Your task to perform on an android device: Open calendar and show me the fourth week of next month Image 0: 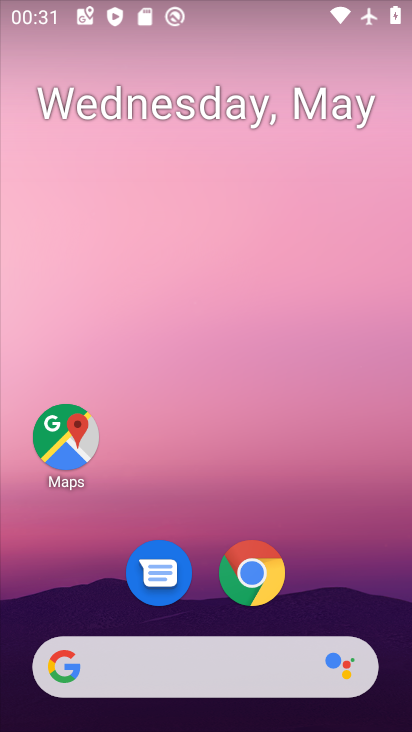
Step 0: drag from (286, 398) to (293, 160)
Your task to perform on an android device: Open calendar and show me the fourth week of next month Image 1: 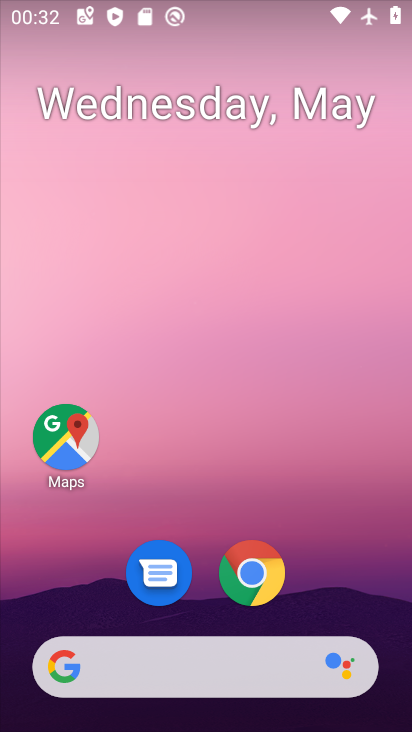
Step 1: drag from (271, 542) to (292, 242)
Your task to perform on an android device: Open calendar and show me the fourth week of next month Image 2: 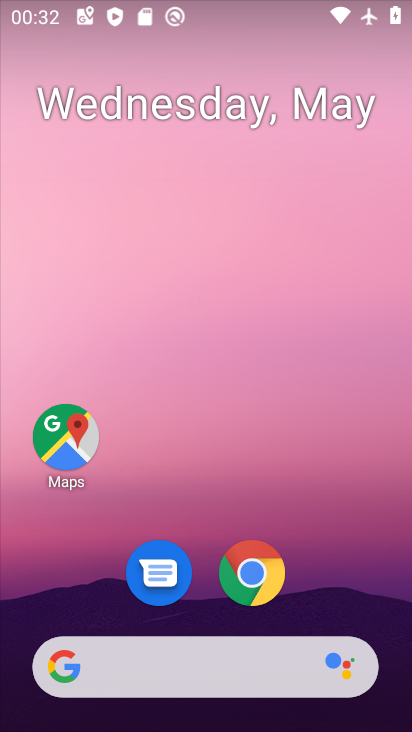
Step 2: drag from (301, 531) to (269, 225)
Your task to perform on an android device: Open calendar and show me the fourth week of next month Image 3: 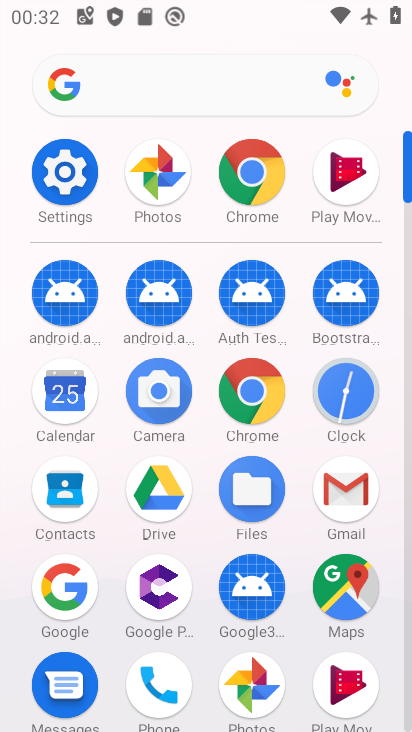
Step 3: click (75, 396)
Your task to perform on an android device: Open calendar and show me the fourth week of next month Image 4: 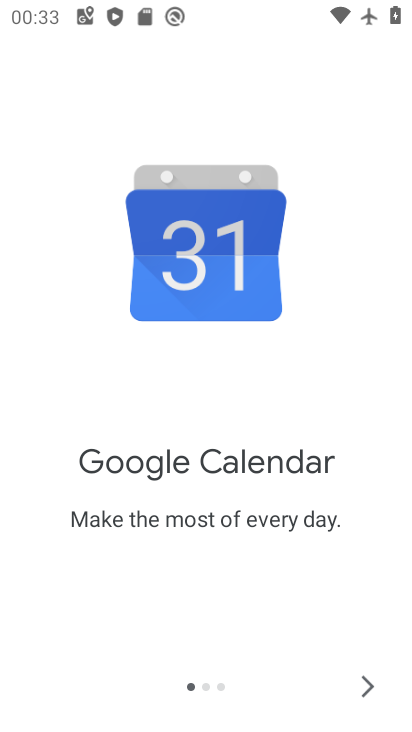
Step 4: click (353, 700)
Your task to perform on an android device: Open calendar and show me the fourth week of next month Image 5: 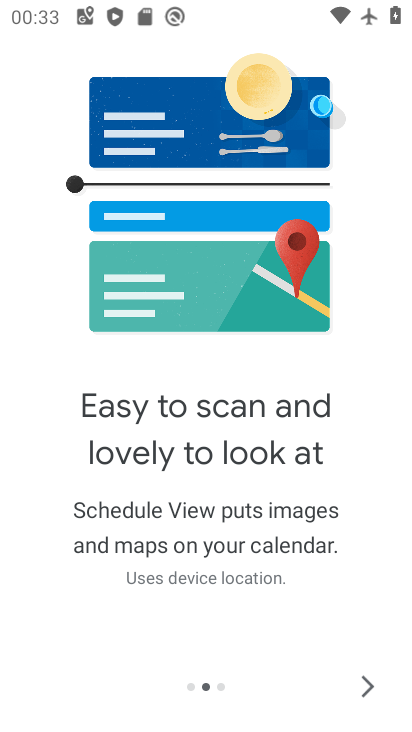
Step 5: click (348, 699)
Your task to perform on an android device: Open calendar and show me the fourth week of next month Image 6: 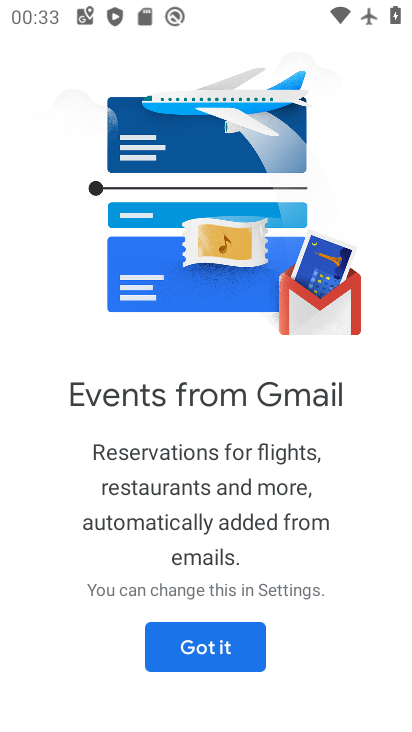
Step 6: click (348, 698)
Your task to perform on an android device: Open calendar and show me the fourth week of next month Image 7: 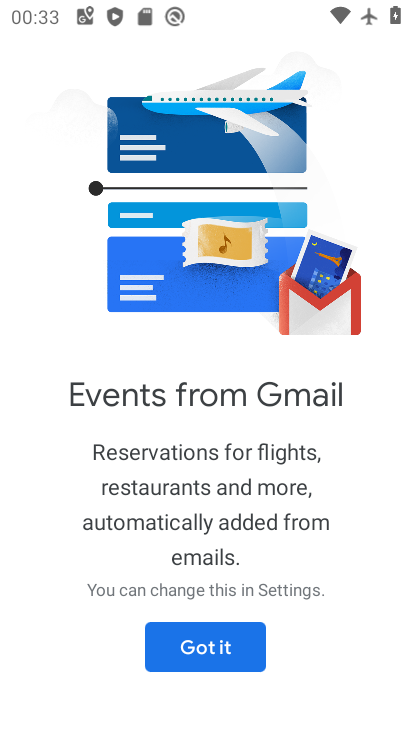
Step 7: click (216, 632)
Your task to perform on an android device: Open calendar and show me the fourth week of next month Image 8: 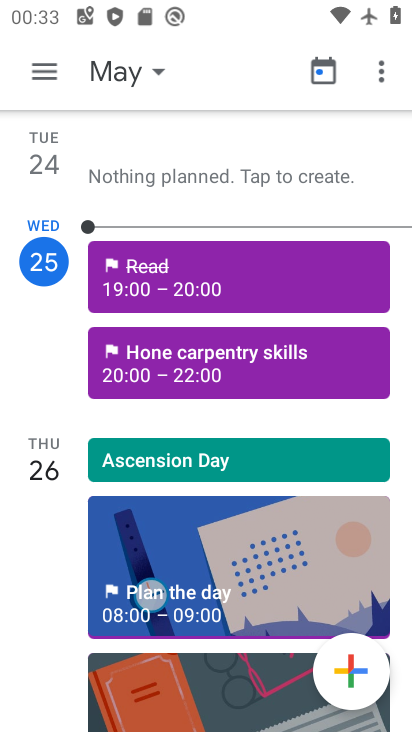
Step 8: drag from (364, 509) to (190, 457)
Your task to perform on an android device: Open calendar and show me the fourth week of next month Image 9: 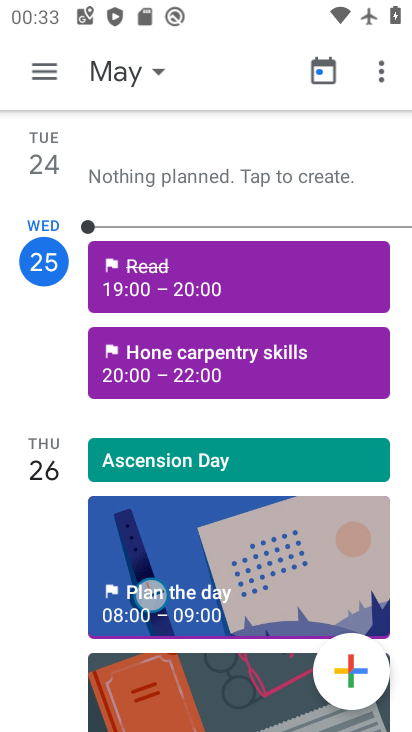
Step 9: click (38, 64)
Your task to perform on an android device: Open calendar and show me the fourth week of next month Image 10: 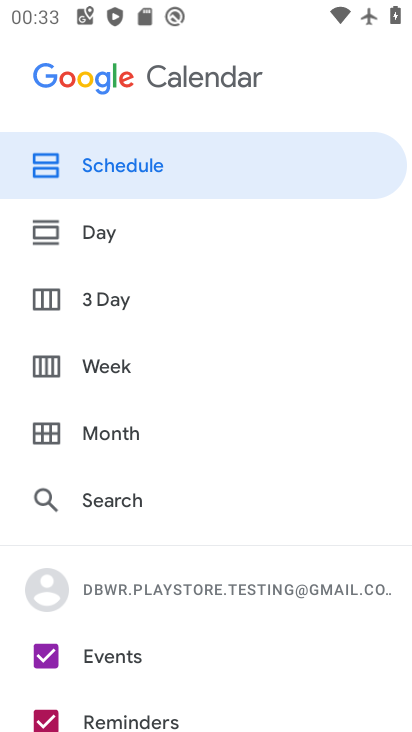
Step 10: click (129, 419)
Your task to perform on an android device: Open calendar and show me the fourth week of next month Image 11: 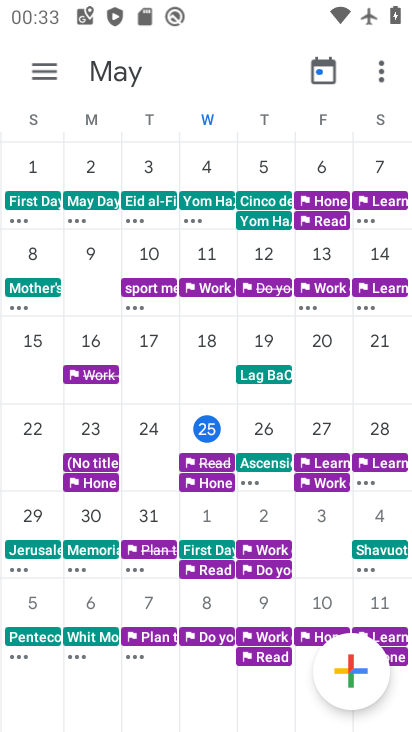
Step 11: task complete